Your task to perform on an android device: find which apps use the phone's location Image 0: 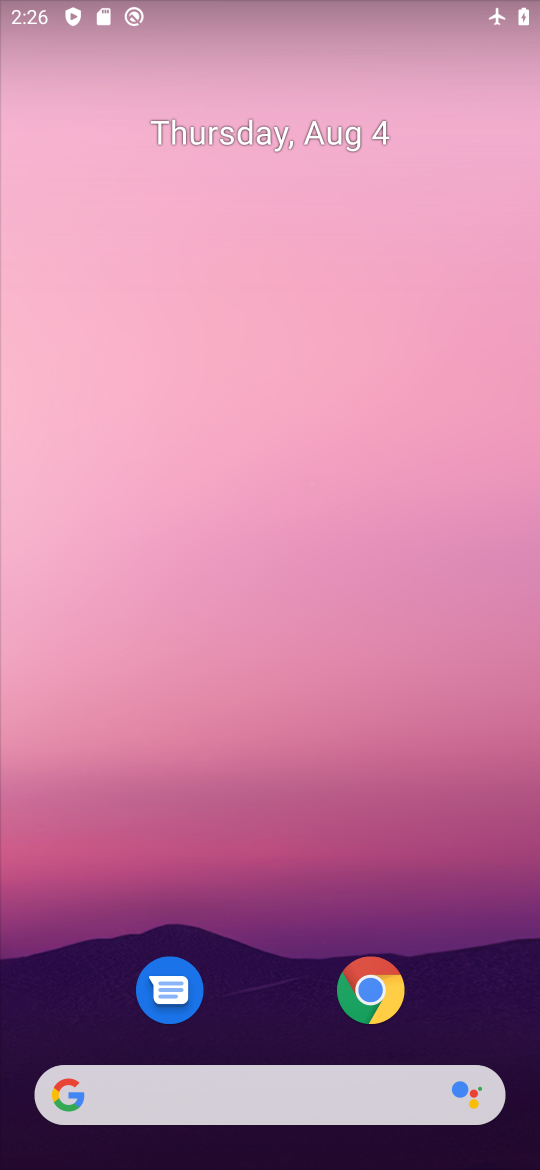
Step 0: drag from (281, 1012) to (240, 137)
Your task to perform on an android device: find which apps use the phone's location Image 1: 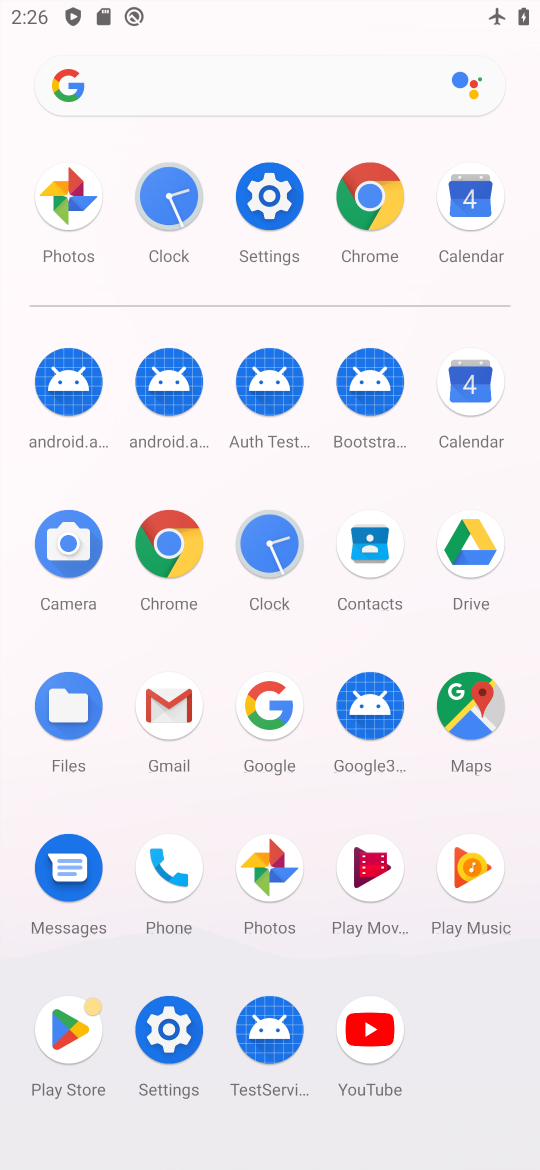
Step 1: click (297, 229)
Your task to perform on an android device: find which apps use the phone's location Image 2: 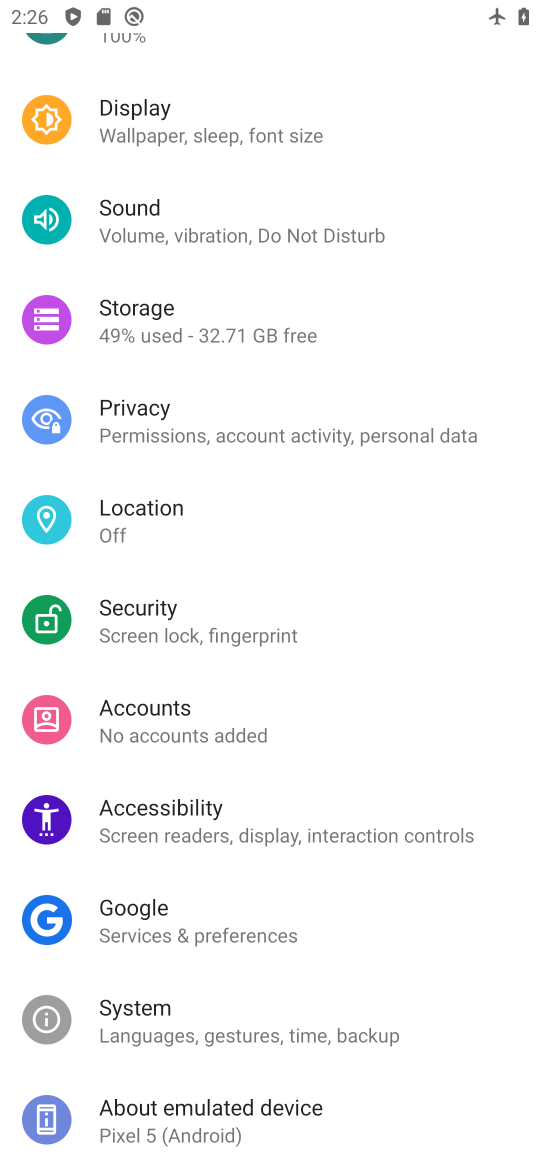
Step 2: click (186, 490)
Your task to perform on an android device: find which apps use the phone's location Image 3: 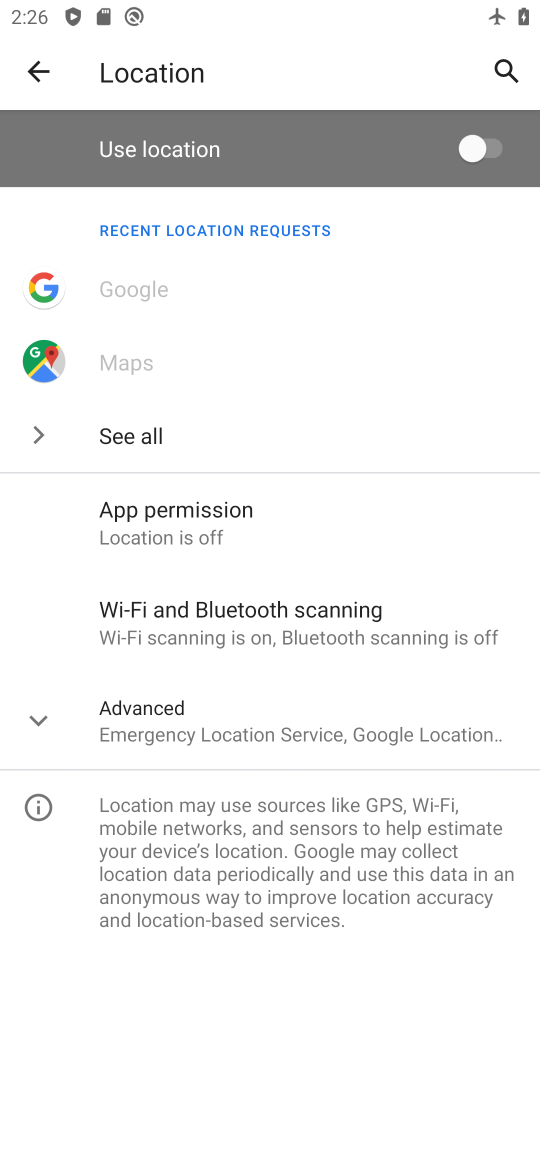
Step 3: click (107, 706)
Your task to perform on an android device: find which apps use the phone's location Image 4: 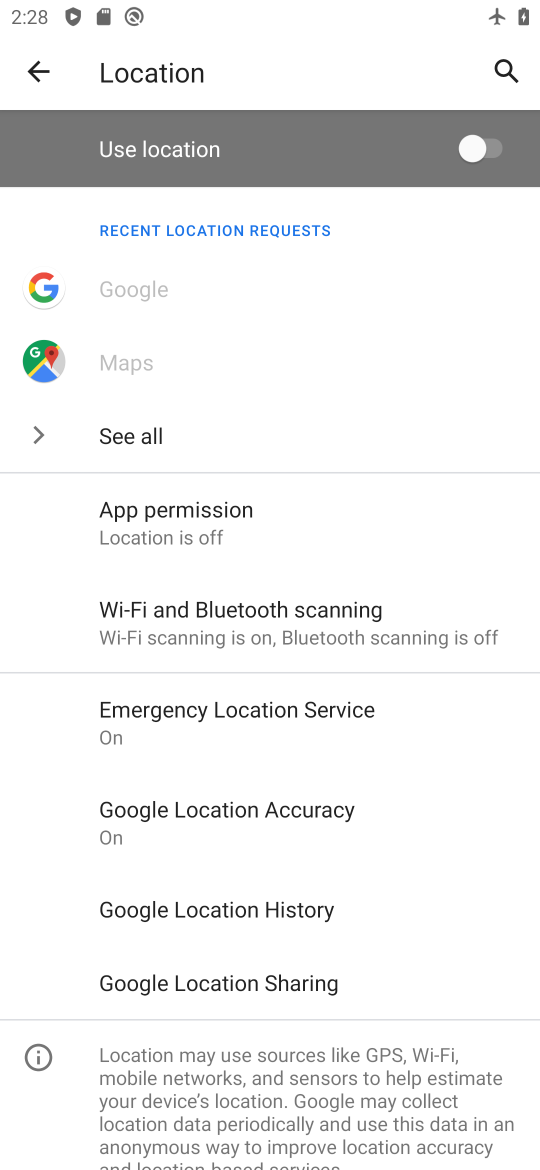
Step 4: task complete